Your task to perform on an android device: empty trash in the gmail app Image 0: 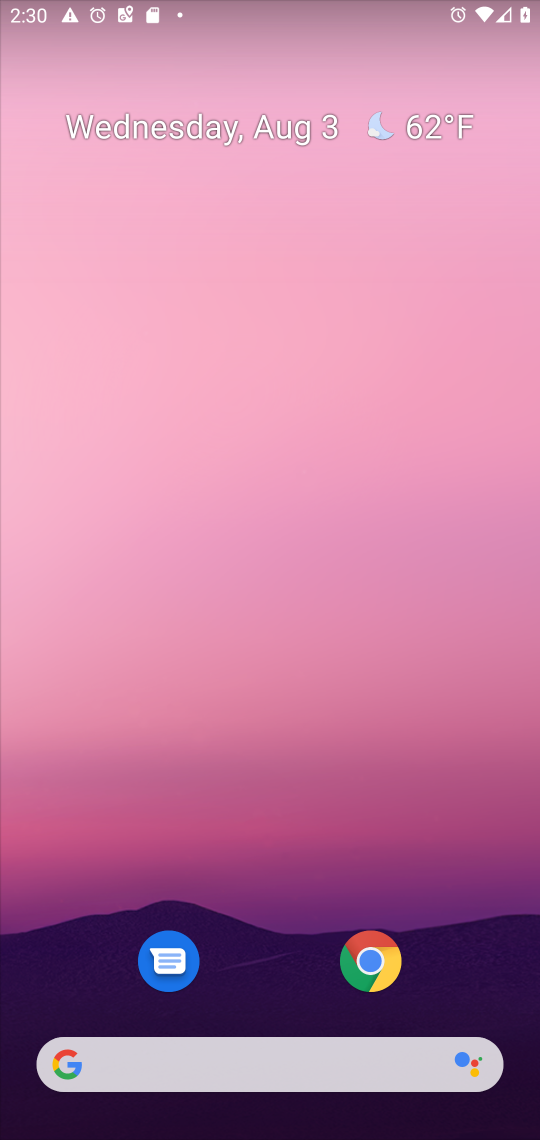
Step 0: drag from (265, 906) to (289, 86)
Your task to perform on an android device: empty trash in the gmail app Image 1: 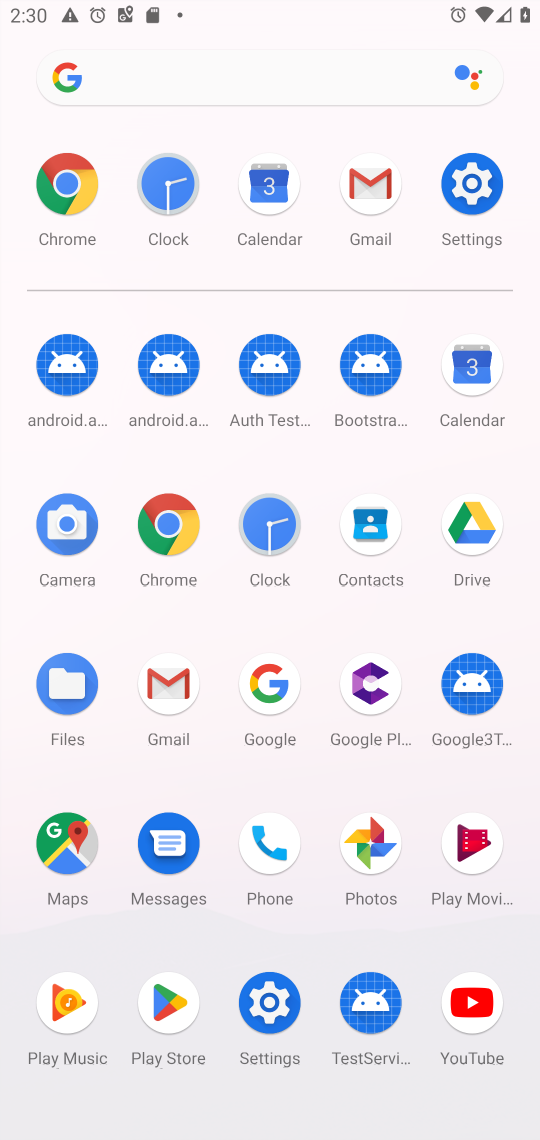
Step 1: click (369, 181)
Your task to perform on an android device: empty trash in the gmail app Image 2: 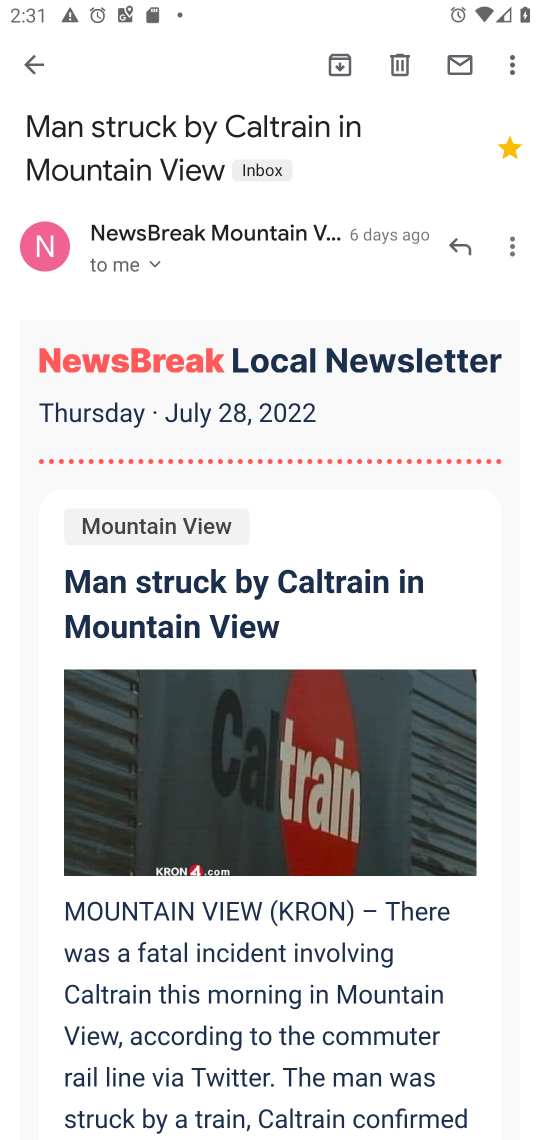
Step 2: click (32, 73)
Your task to perform on an android device: empty trash in the gmail app Image 3: 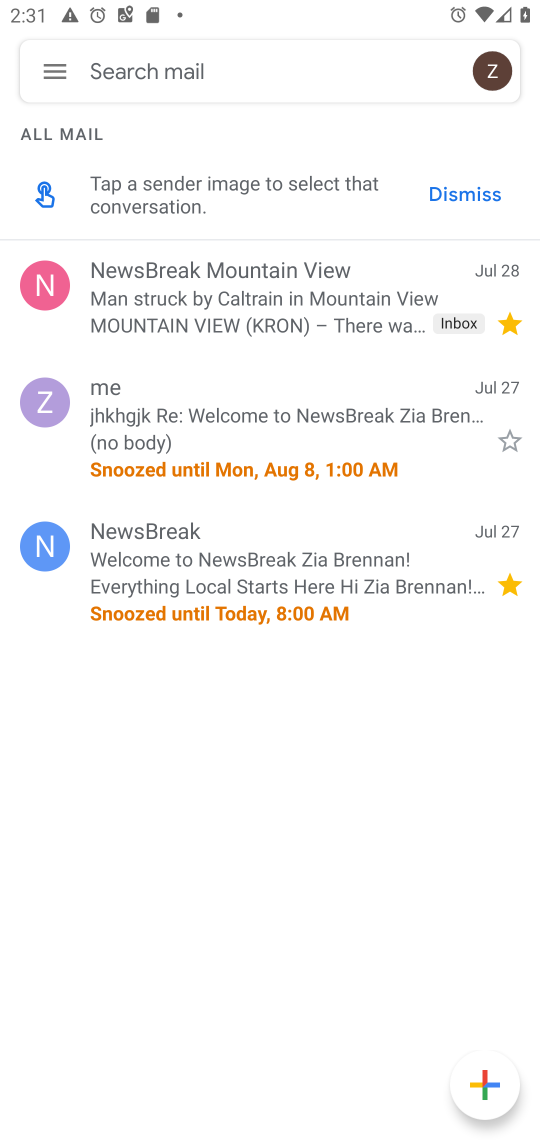
Step 3: click (66, 76)
Your task to perform on an android device: empty trash in the gmail app Image 4: 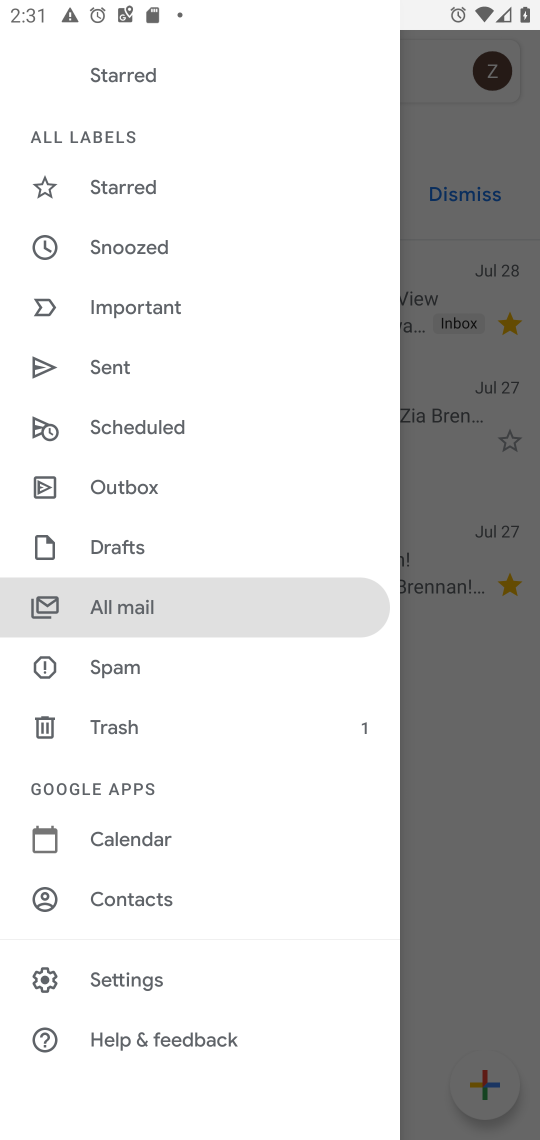
Step 4: click (110, 720)
Your task to perform on an android device: empty trash in the gmail app Image 5: 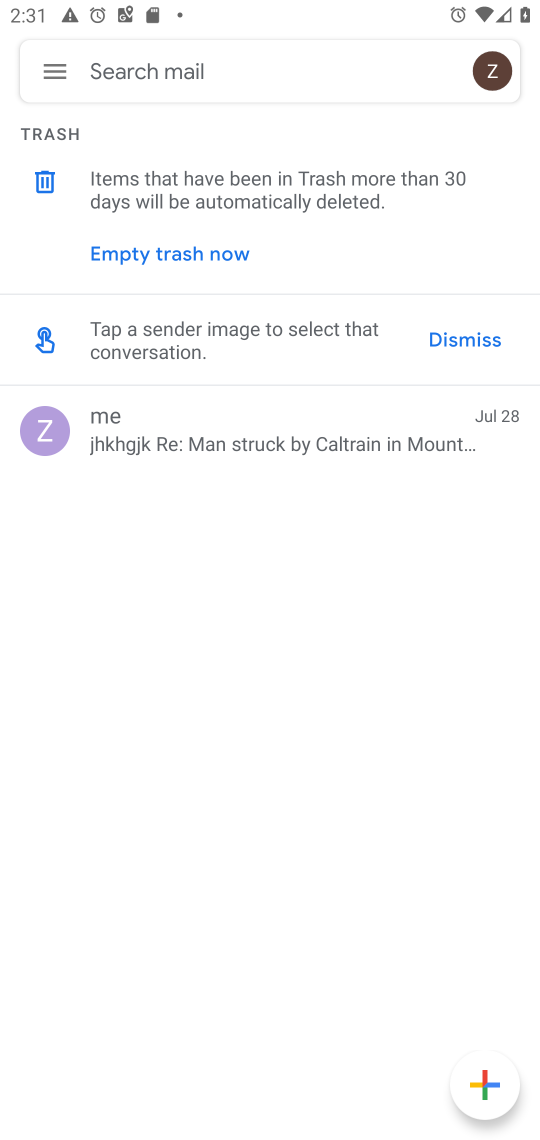
Step 5: click (142, 247)
Your task to perform on an android device: empty trash in the gmail app Image 6: 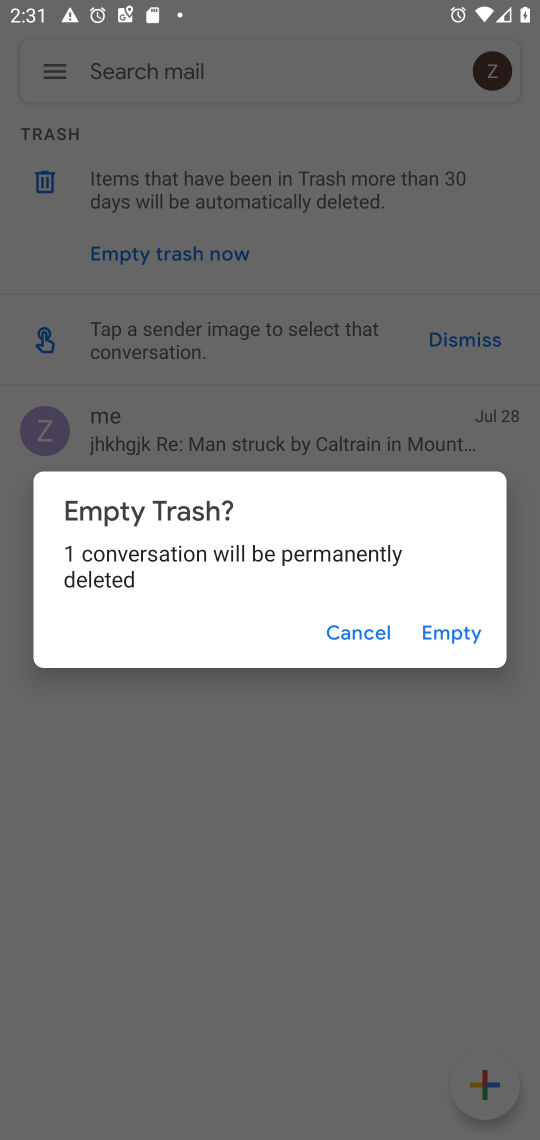
Step 6: click (429, 640)
Your task to perform on an android device: empty trash in the gmail app Image 7: 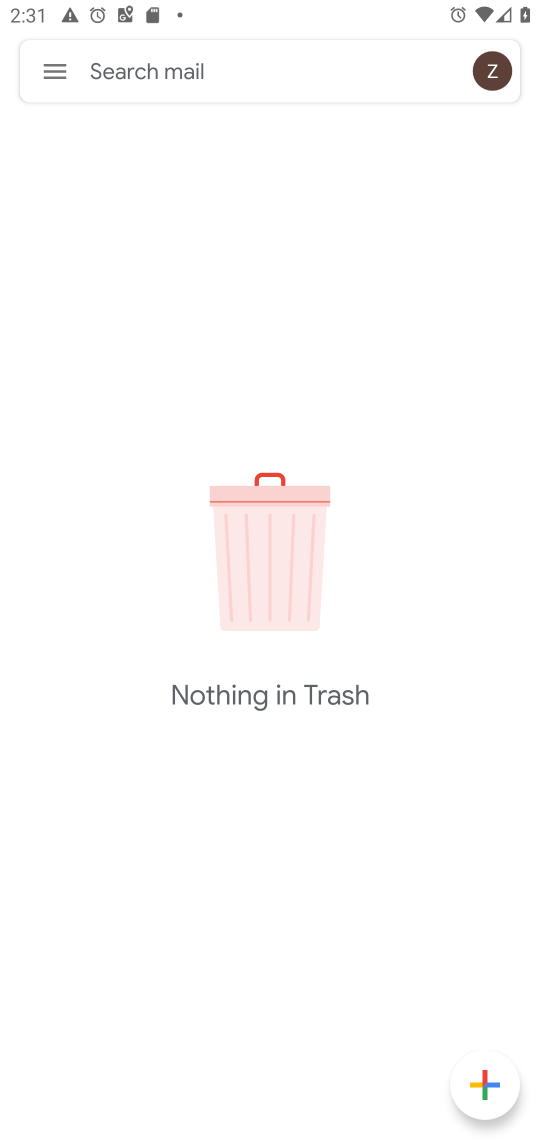
Step 7: task complete